Your task to perform on an android device: turn off smart reply in the gmail app Image 0: 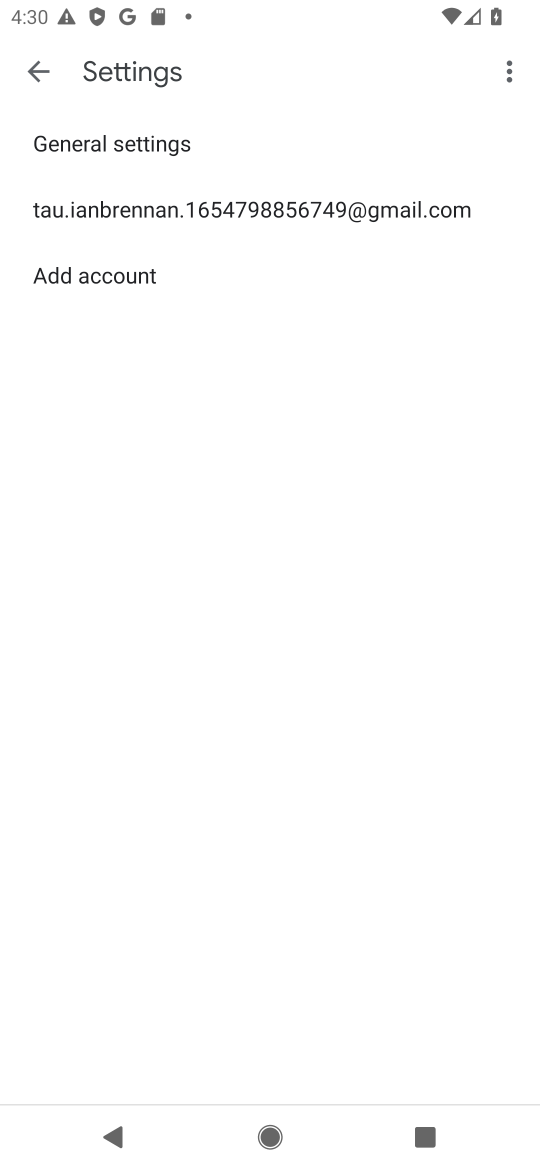
Step 0: press home button
Your task to perform on an android device: turn off smart reply in the gmail app Image 1: 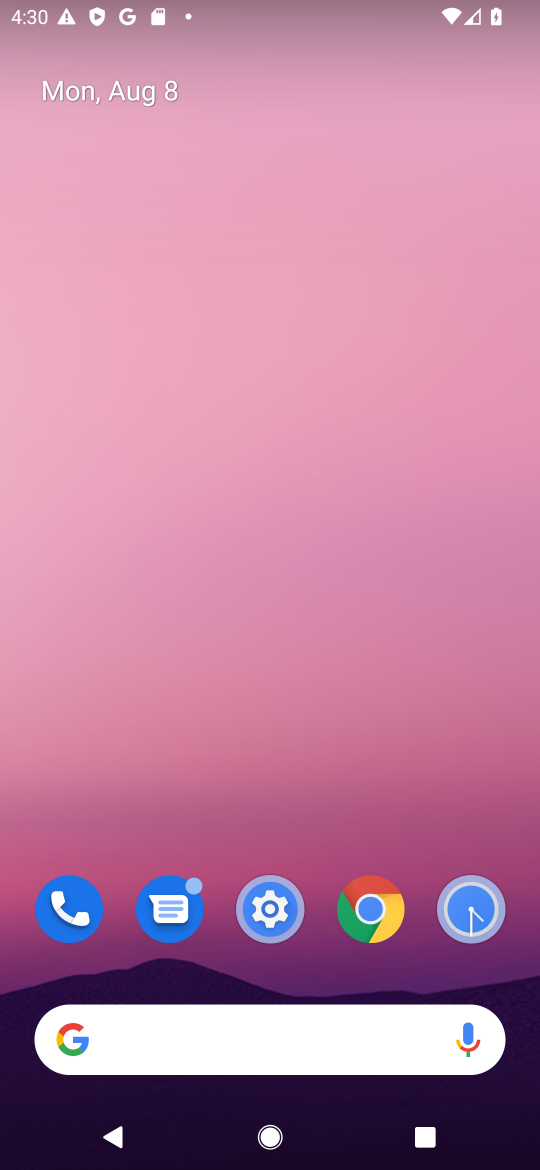
Step 1: drag from (252, 895) to (283, 298)
Your task to perform on an android device: turn off smart reply in the gmail app Image 2: 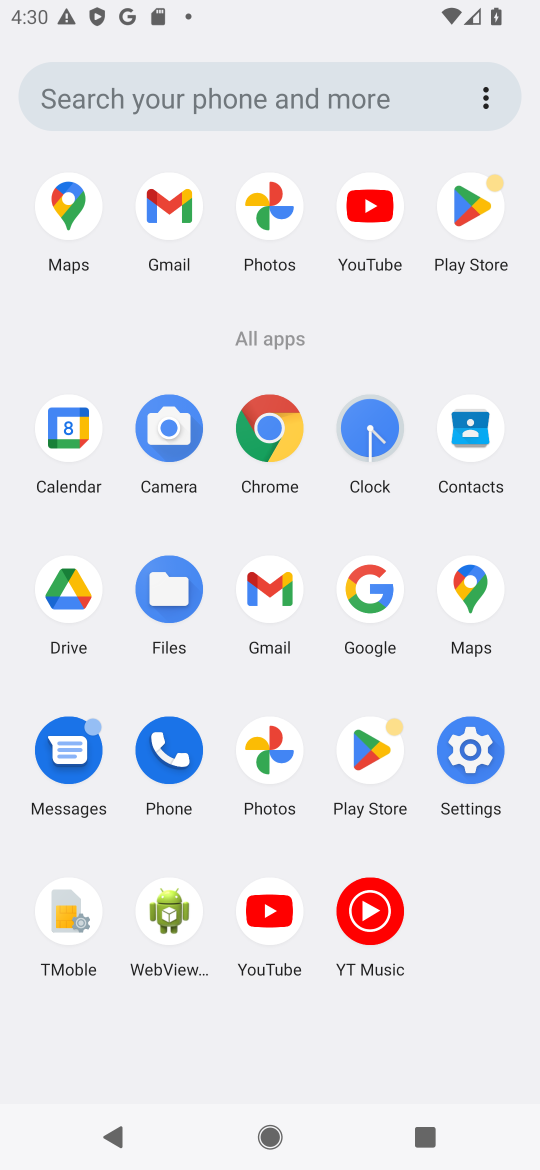
Step 2: click (173, 206)
Your task to perform on an android device: turn off smart reply in the gmail app Image 3: 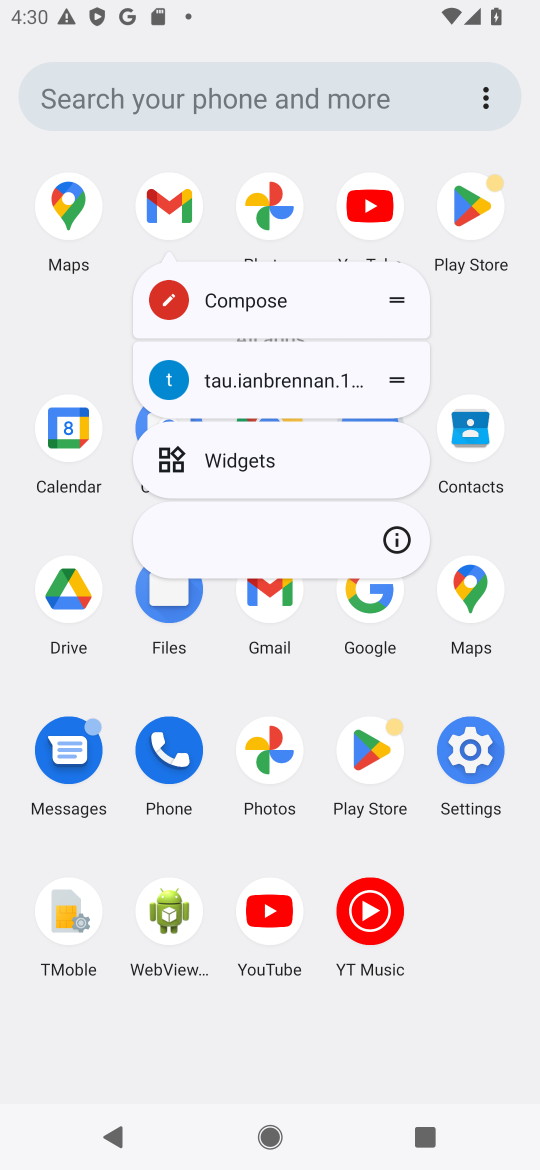
Step 3: click (174, 206)
Your task to perform on an android device: turn off smart reply in the gmail app Image 4: 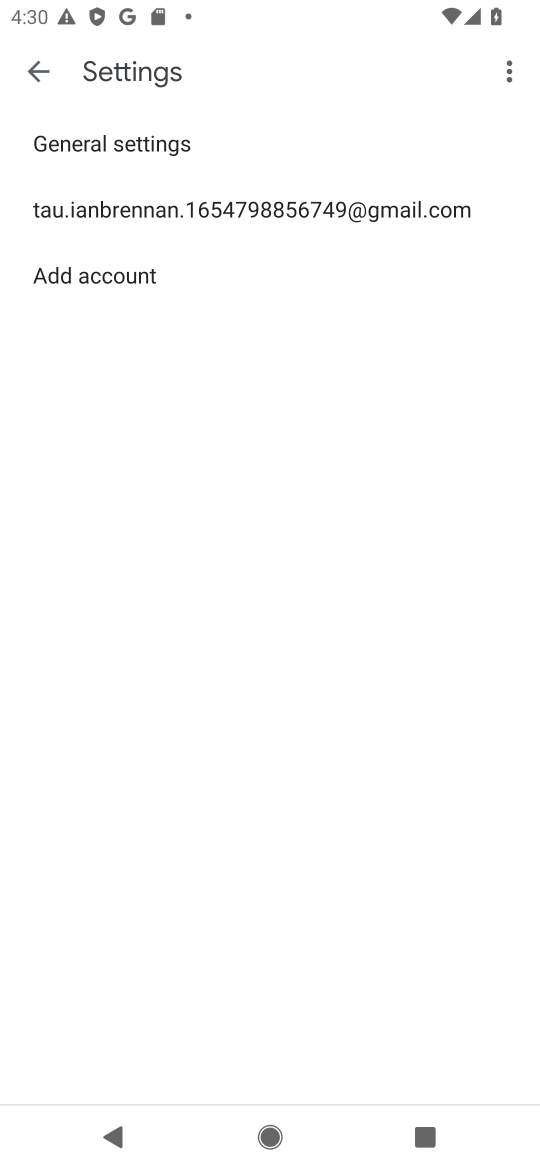
Step 4: click (224, 201)
Your task to perform on an android device: turn off smart reply in the gmail app Image 5: 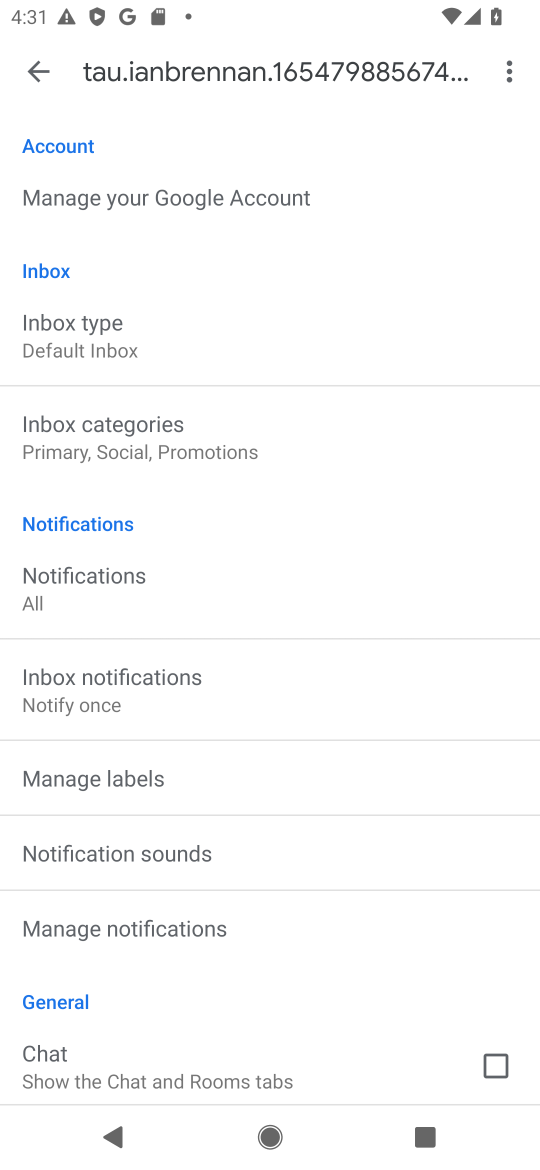
Step 5: drag from (291, 1001) to (490, 98)
Your task to perform on an android device: turn off smart reply in the gmail app Image 6: 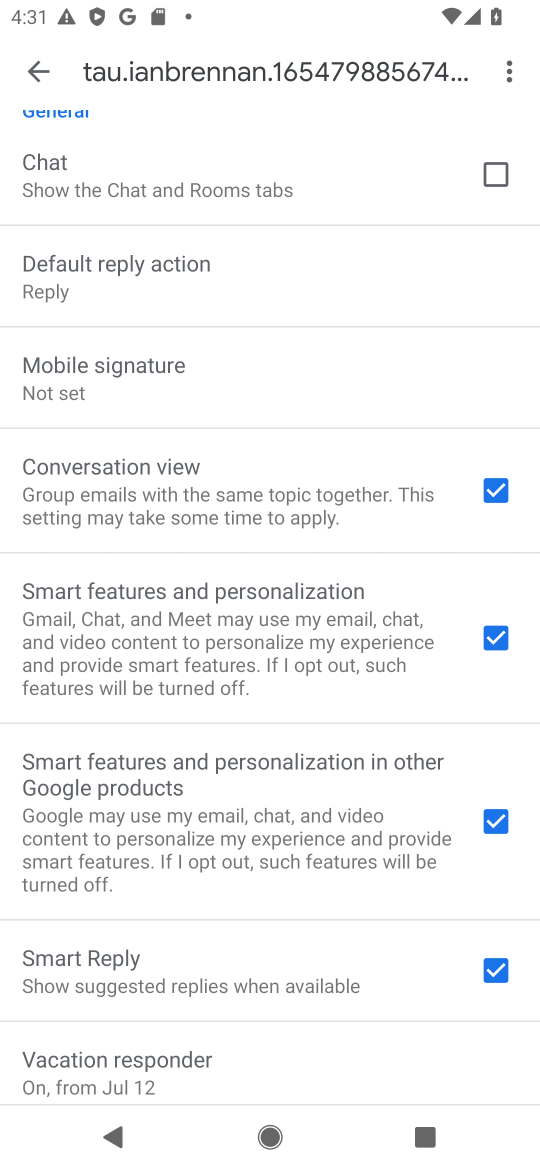
Step 6: click (495, 961)
Your task to perform on an android device: turn off smart reply in the gmail app Image 7: 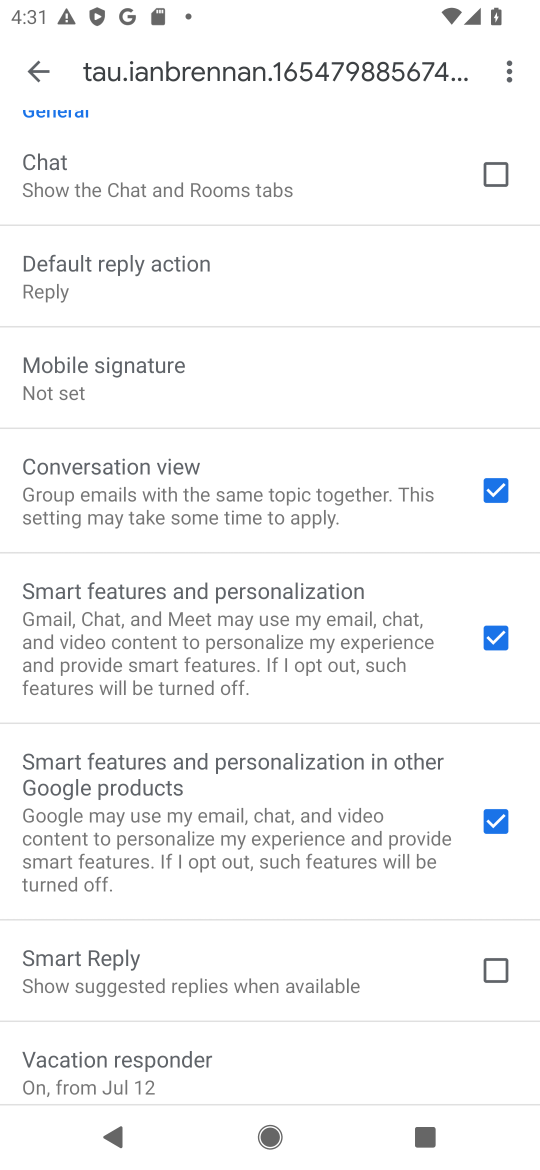
Step 7: task complete